Your task to perform on an android device: Set the phone to "Do not disturb". Image 0: 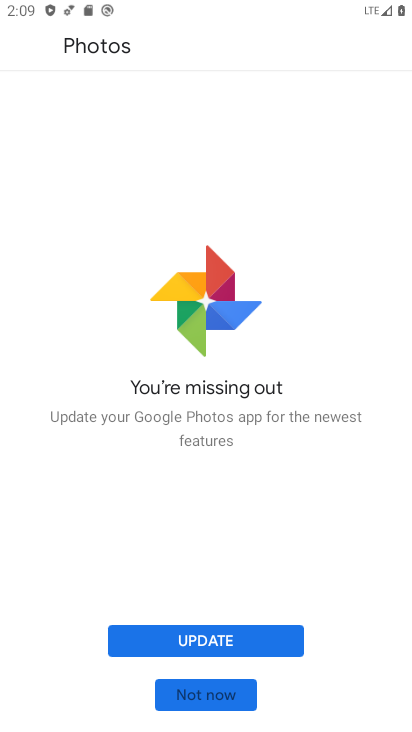
Step 0: press home button
Your task to perform on an android device: Set the phone to "Do not disturb". Image 1: 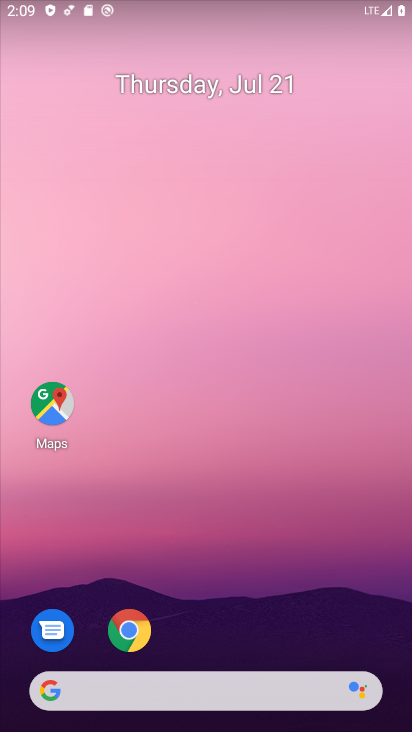
Step 1: drag from (332, 4) to (336, 518)
Your task to perform on an android device: Set the phone to "Do not disturb". Image 2: 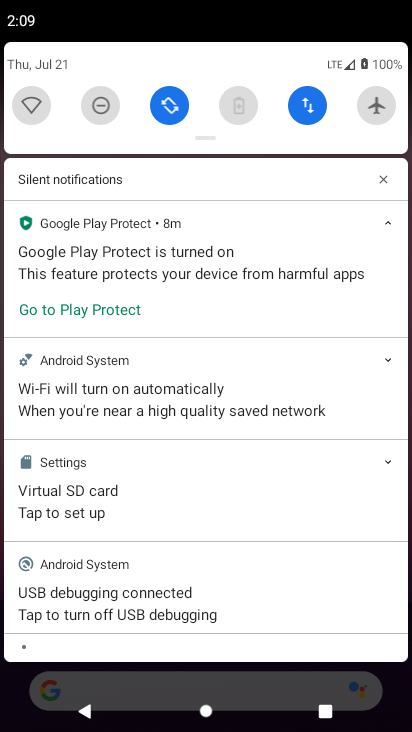
Step 2: click (94, 108)
Your task to perform on an android device: Set the phone to "Do not disturb". Image 3: 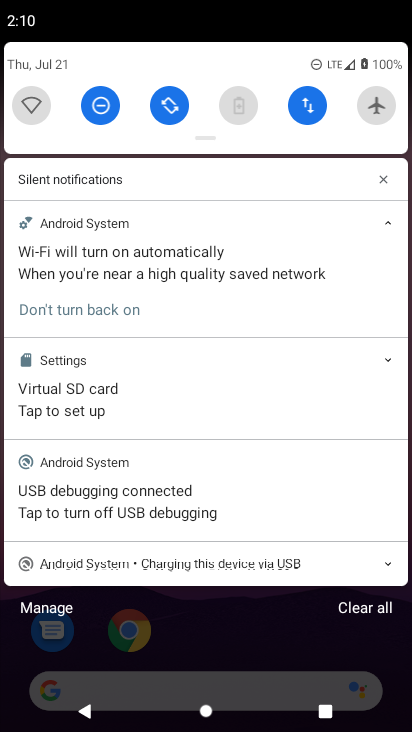
Step 3: task complete